Your task to perform on an android device: turn off smart reply in the gmail app Image 0: 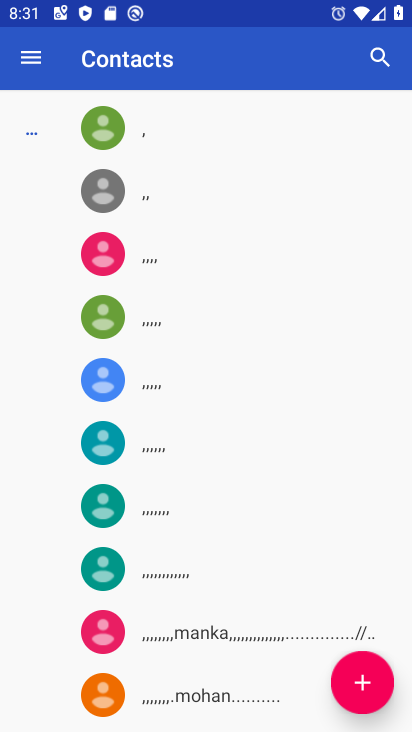
Step 0: drag from (221, 679) to (246, 271)
Your task to perform on an android device: turn off smart reply in the gmail app Image 1: 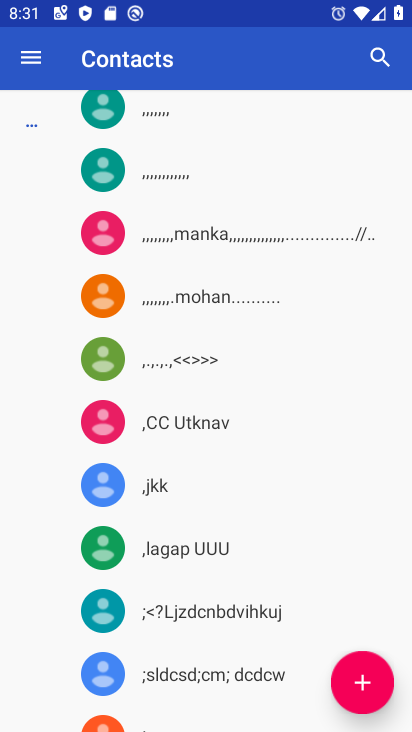
Step 1: drag from (278, 549) to (340, 253)
Your task to perform on an android device: turn off smart reply in the gmail app Image 2: 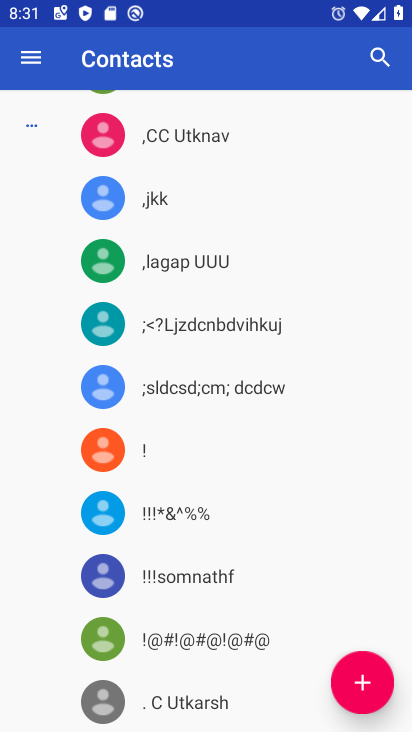
Step 2: drag from (189, 562) to (217, 240)
Your task to perform on an android device: turn off smart reply in the gmail app Image 3: 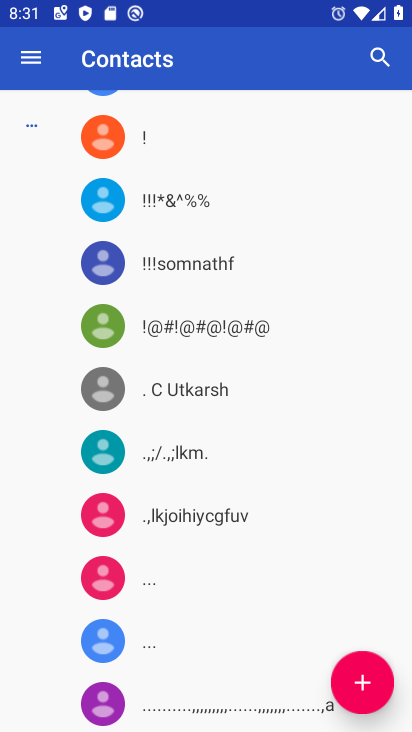
Step 3: drag from (238, 562) to (265, 136)
Your task to perform on an android device: turn off smart reply in the gmail app Image 4: 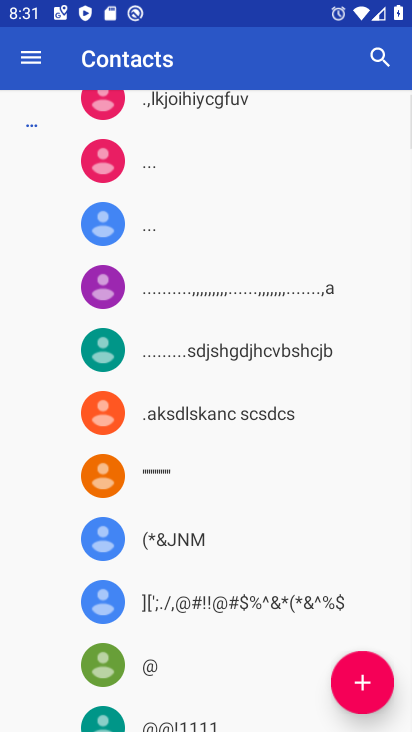
Step 4: click (26, 60)
Your task to perform on an android device: turn off smart reply in the gmail app Image 5: 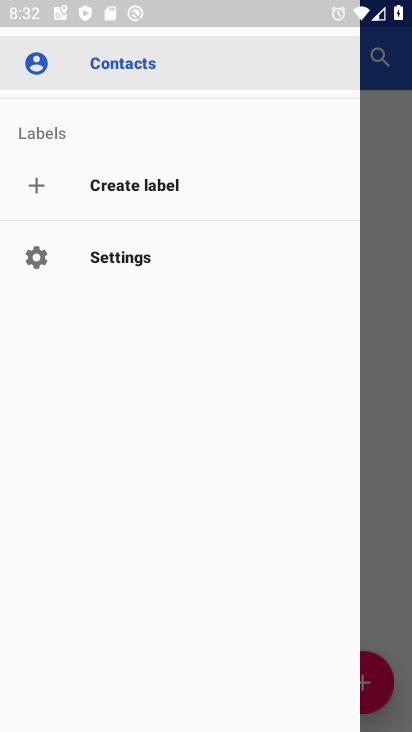
Step 5: click (389, 394)
Your task to perform on an android device: turn off smart reply in the gmail app Image 6: 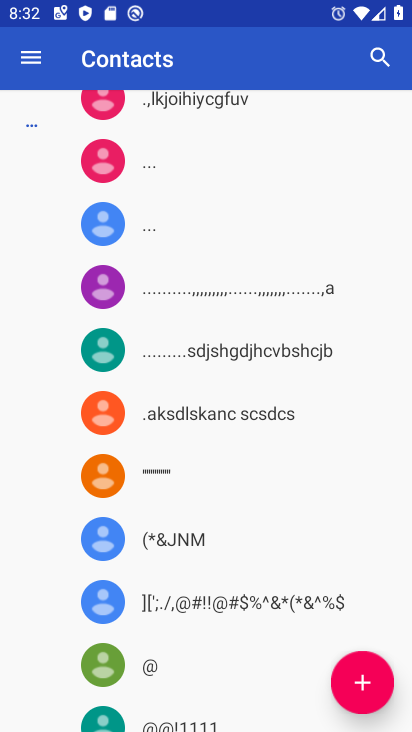
Step 6: click (37, 63)
Your task to perform on an android device: turn off smart reply in the gmail app Image 7: 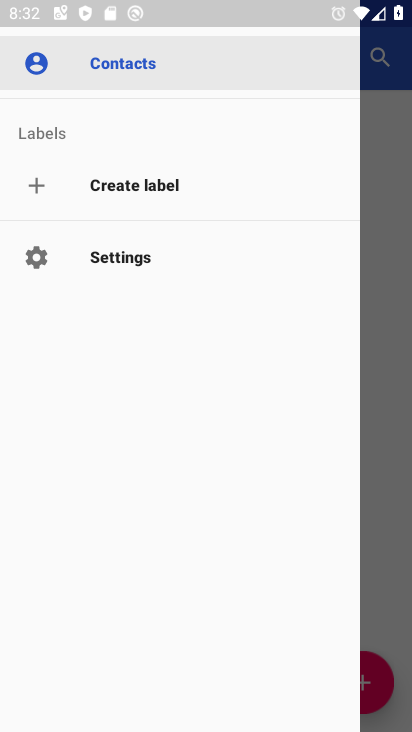
Step 7: click (380, 339)
Your task to perform on an android device: turn off smart reply in the gmail app Image 8: 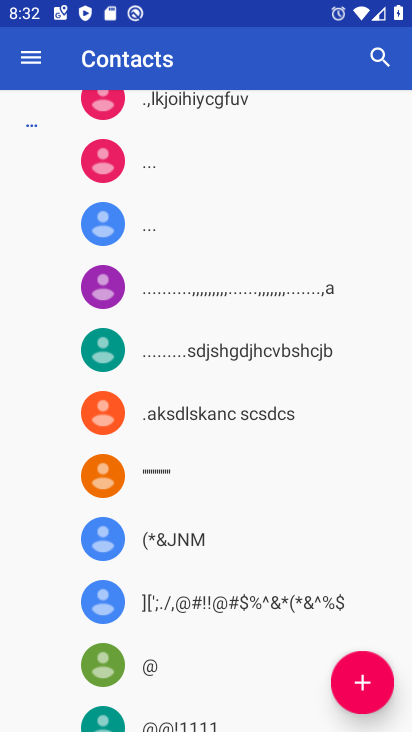
Step 8: press home button
Your task to perform on an android device: turn off smart reply in the gmail app Image 9: 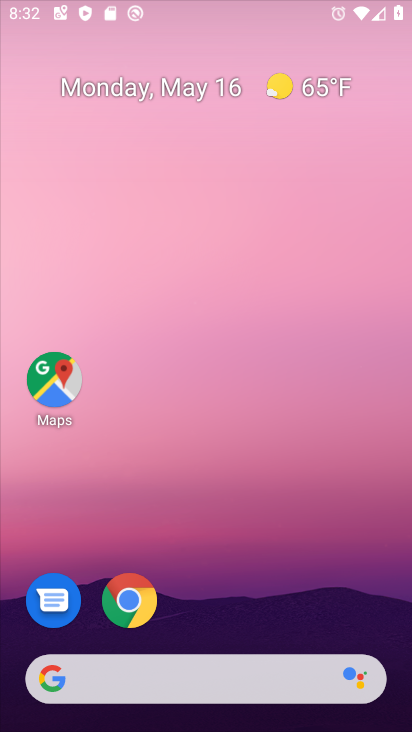
Step 9: drag from (233, 627) to (287, 132)
Your task to perform on an android device: turn off smart reply in the gmail app Image 10: 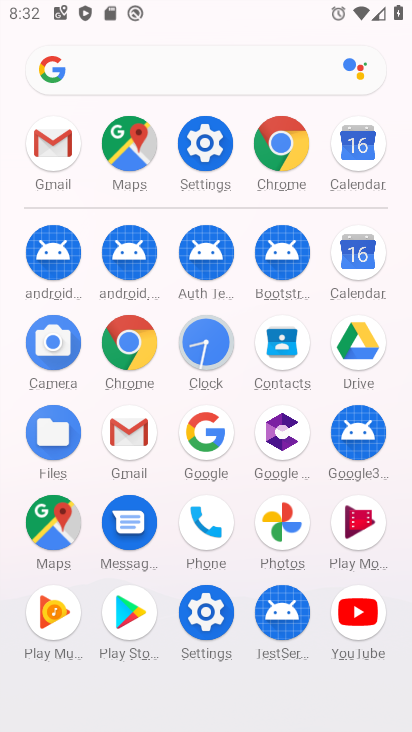
Step 10: click (135, 431)
Your task to perform on an android device: turn off smart reply in the gmail app Image 11: 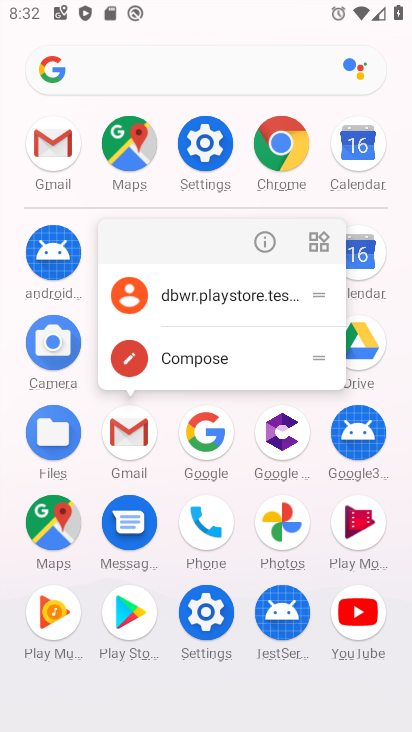
Step 11: click (227, 287)
Your task to perform on an android device: turn off smart reply in the gmail app Image 12: 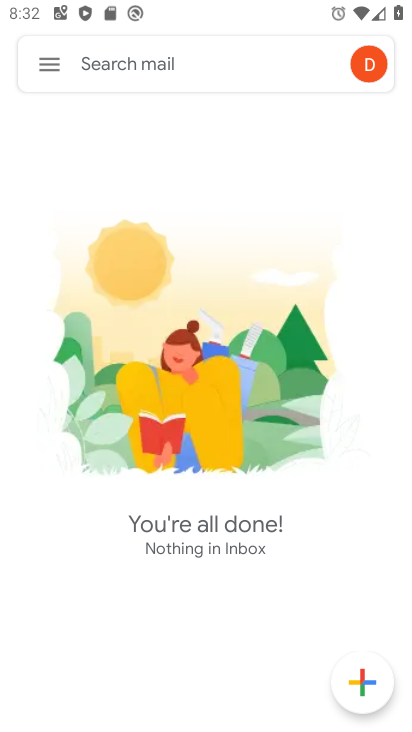
Step 12: click (43, 75)
Your task to perform on an android device: turn off smart reply in the gmail app Image 13: 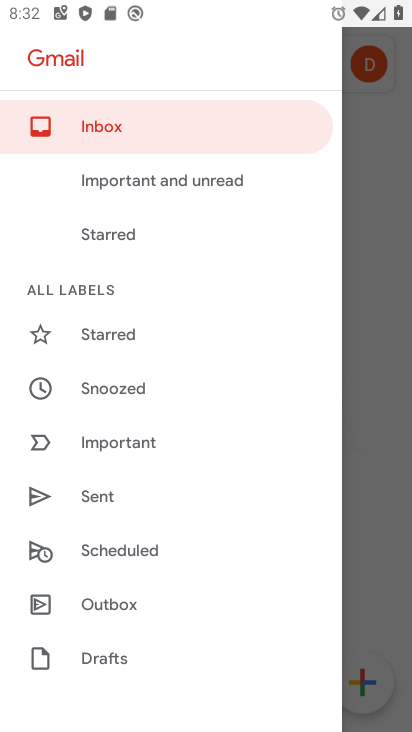
Step 13: drag from (183, 703) to (207, 82)
Your task to perform on an android device: turn off smart reply in the gmail app Image 14: 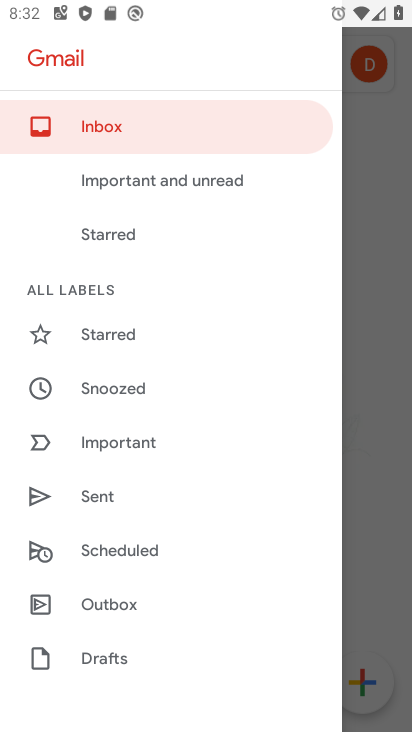
Step 14: drag from (213, 573) to (236, 225)
Your task to perform on an android device: turn off smart reply in the gmail app Image 15: 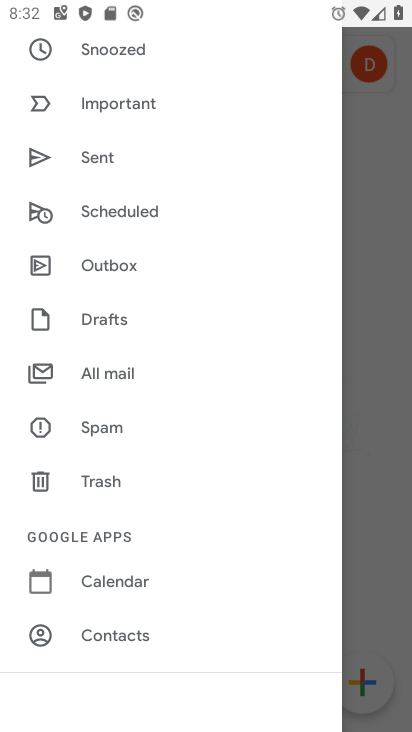
Step 15: drag from (147, 580) to (256, 111)
Your task to perform on an android device: turn off smart reply in the gmail app Image 16: 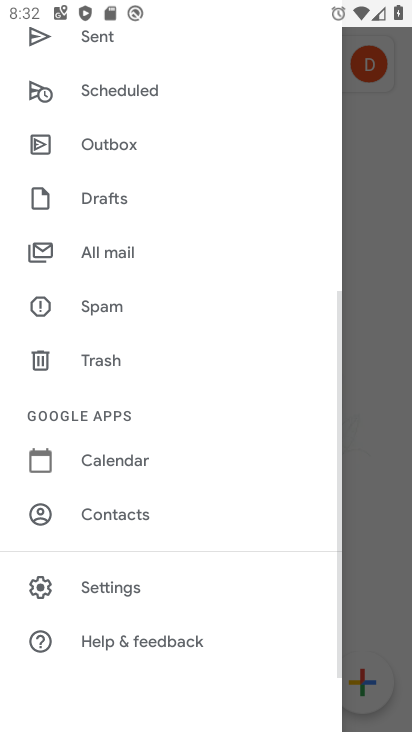
Step 16: click (126, 607)
Your task to perform on an android device: turn off smart reply in the gmail app Image 17: 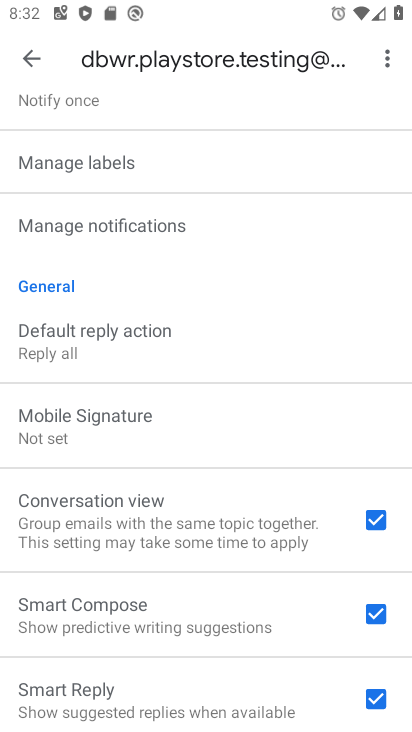
Step 17: drag from (237, 630) to (311, 110)
Your task to perform on an android device: turn off smart reply in the gmail app Image 18: 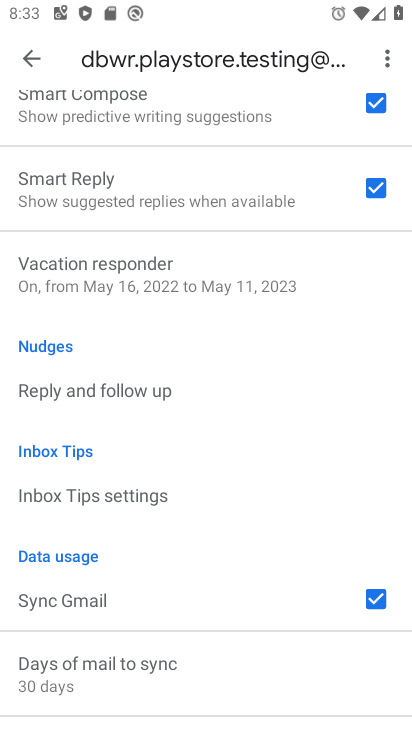
Step 18: click (381, 180)
Your task to perform on an android device: turn off smart reply in the gmail app Image 19: 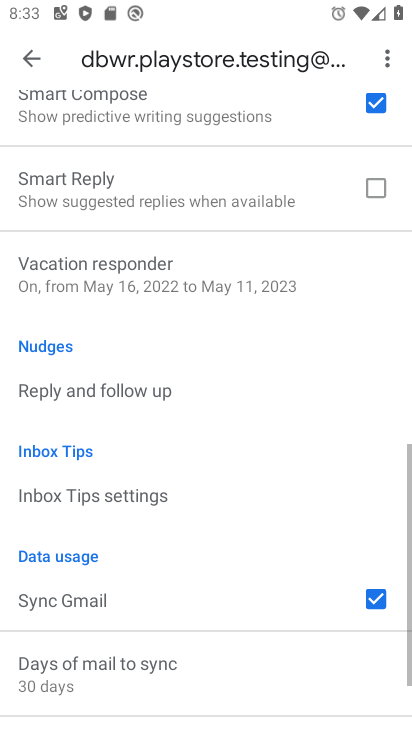
Step 19: task complete